Your task to perform on an android device: set an alarm Image 0: 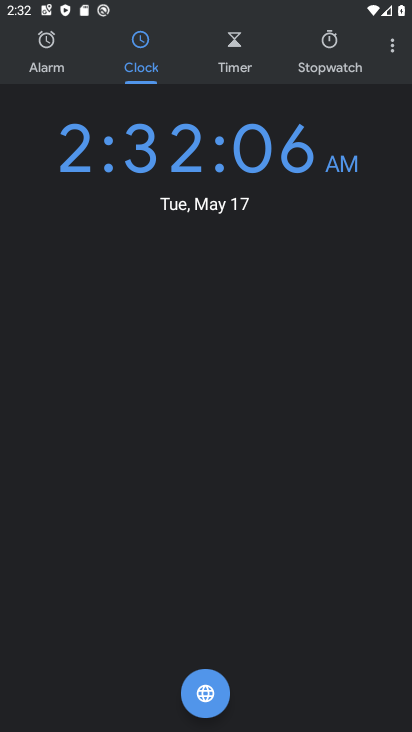
Step 0: press home button
Your task to perform on an android device: set an alarm Image 1: 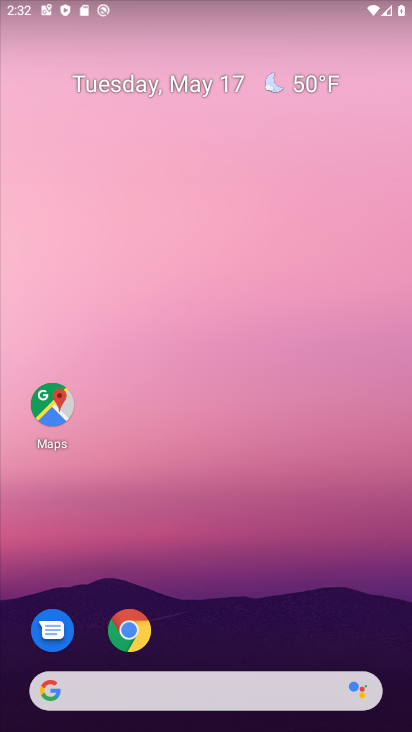
Step 1: drag from (109, 640) to (183, 355)
Your task to perform on an android device: set an alarm Image 2: 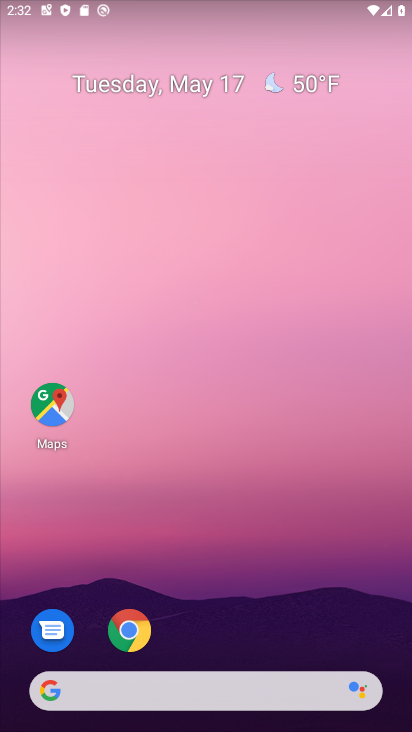
Step 2: drag from (266, 655) to (266, 262)
Your task to perform on an android device: set an alarm Image 3: 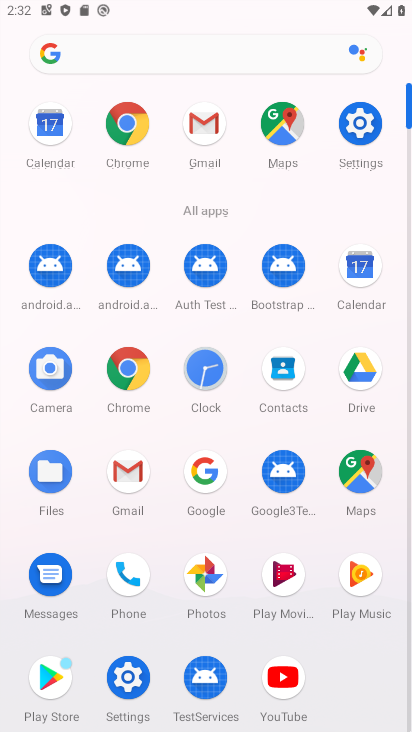
Step 3: click (211, 386)
Your task to perform on an android device: set an alarm Image 4: 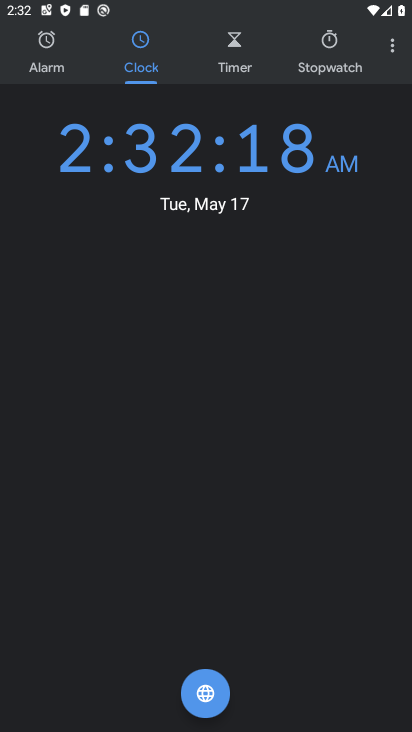
Step 4: click (44, 63)
Your task to perform on an android device: set an alarm Image 5: 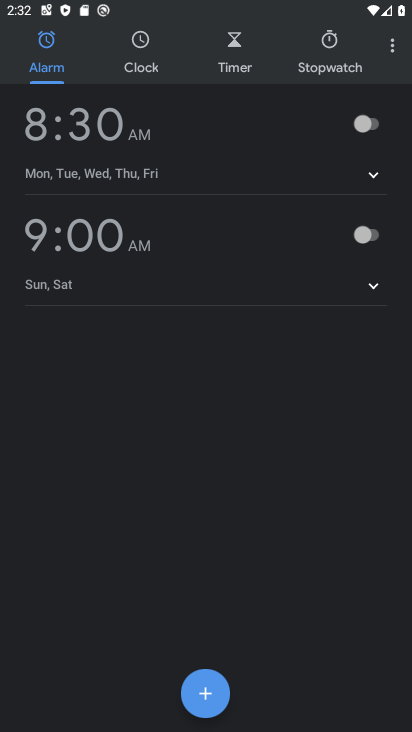
Step 5: click (377, 229)
Your task to perform on an android device: set an alarm Image 6: 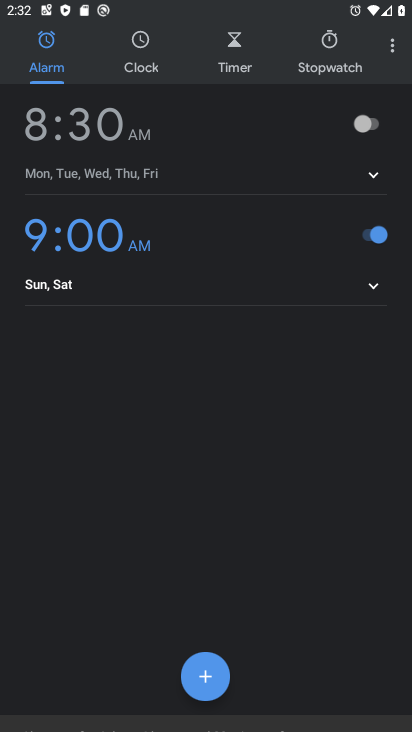
Step 6: task complete